Your task to perform on an android device: Do I have any events today? Image 0: 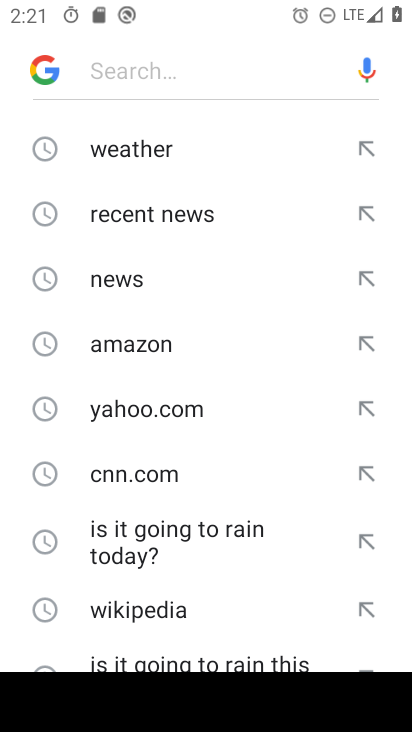
Step 0: press home button
Your task to perform on an android device: Do I have any events today? Image 1: 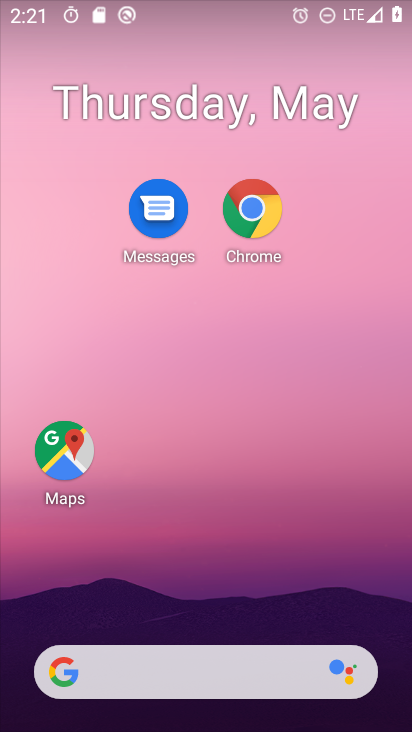
Step 1: drag from (225, 590) to (219, 104)
Your task to perform on an android device: Do I have any events today? Image 2: 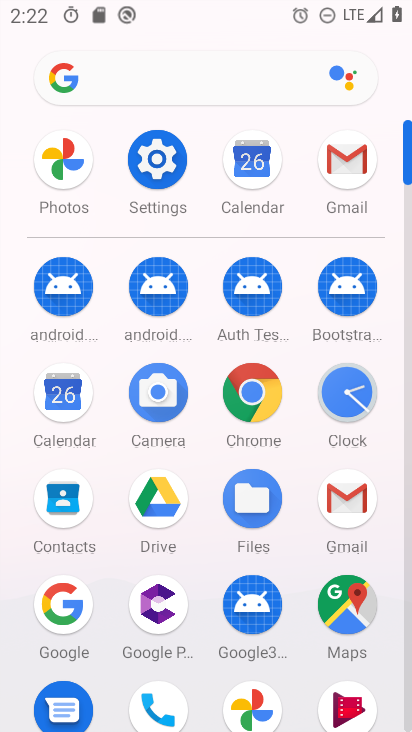
Step 2: drag from (222, 592) to (199, 297)
Your task to perform on an android device: Do I have any events today? Image 3: 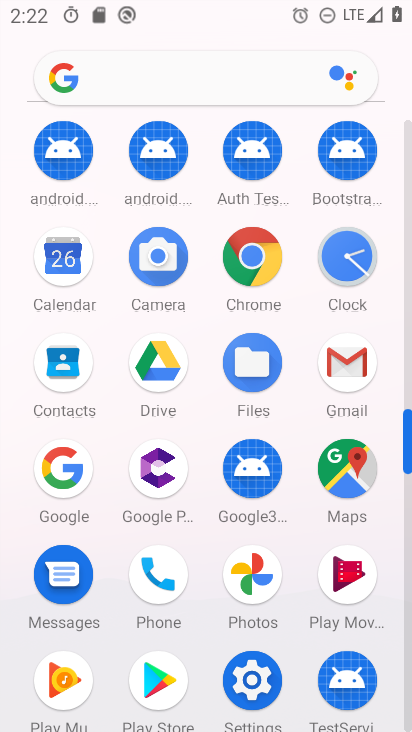
Step 3: drag from (178, 634) to (182, 342)
Your task to perform on an android device: Do I have any events today? Image 4: 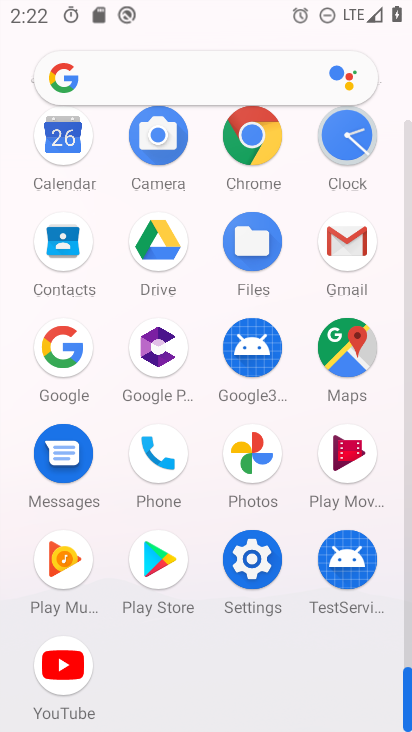
Step 4: click (55, 178)
Your task to perform on an android device: Do I have any events today? Image 5: 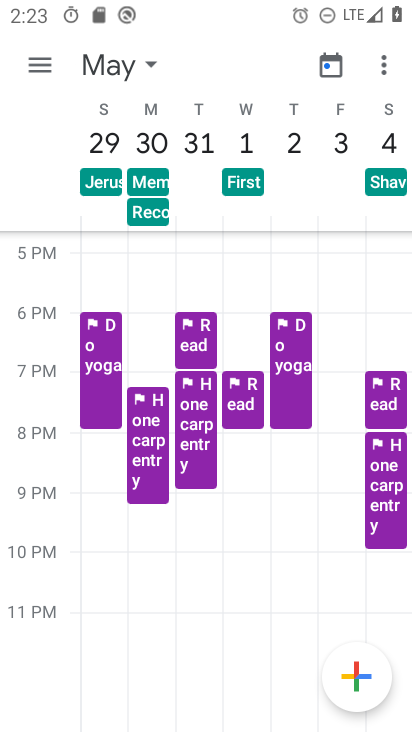
Step 5: click (103, 79)
Your task to perform on an android device: Do I have any events today? Image 6: 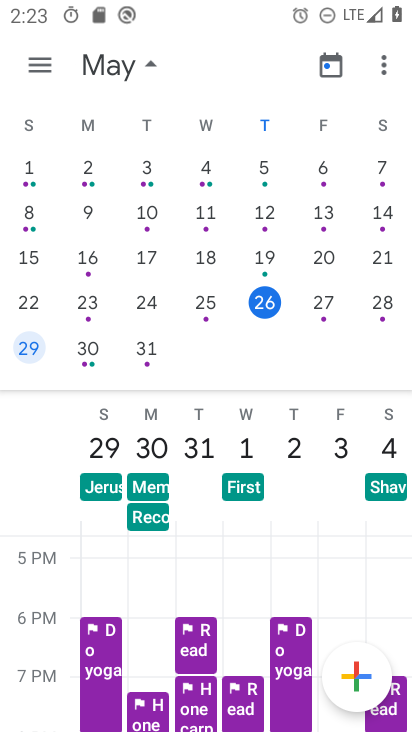
Step 6: click (262, 306)
Your task to perform on an android device: Do I have any events today? Image 7: 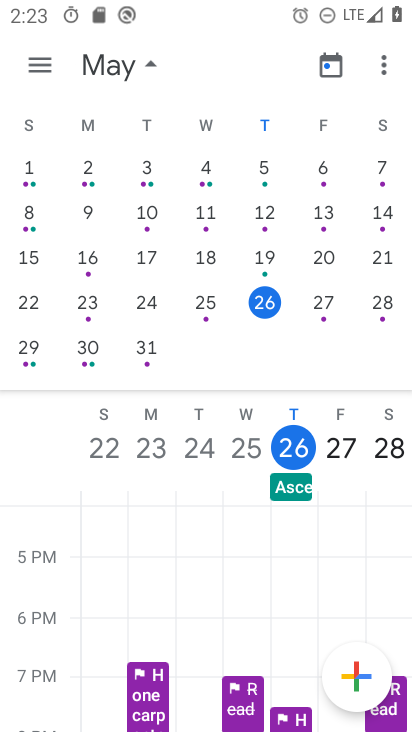
Step 7: task complete